Your task to perform on an android device: Open CNN.com Image 0: 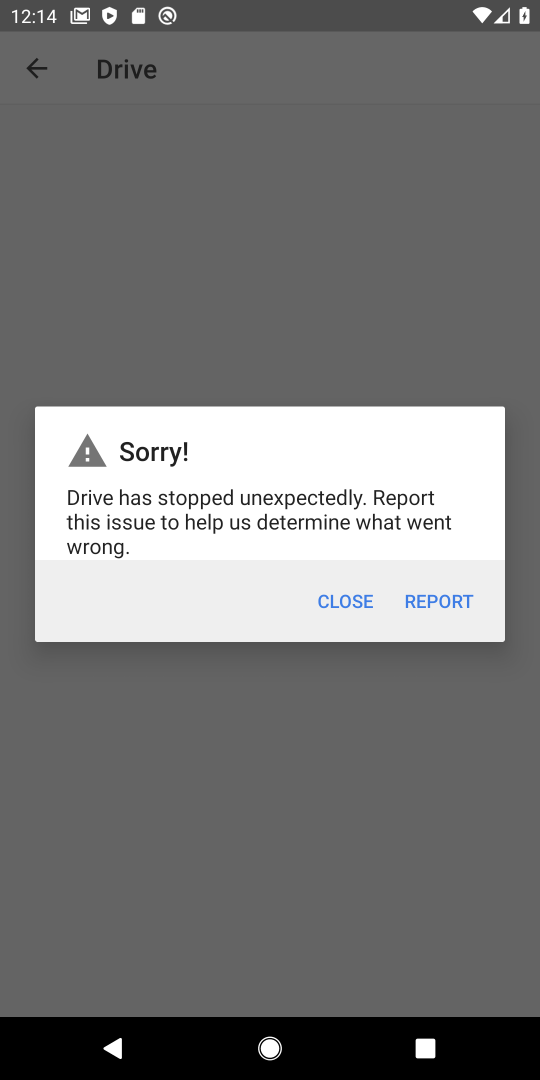
Step 0: press home button
Your task to perform on an android device: Open CNN.com Image 1: 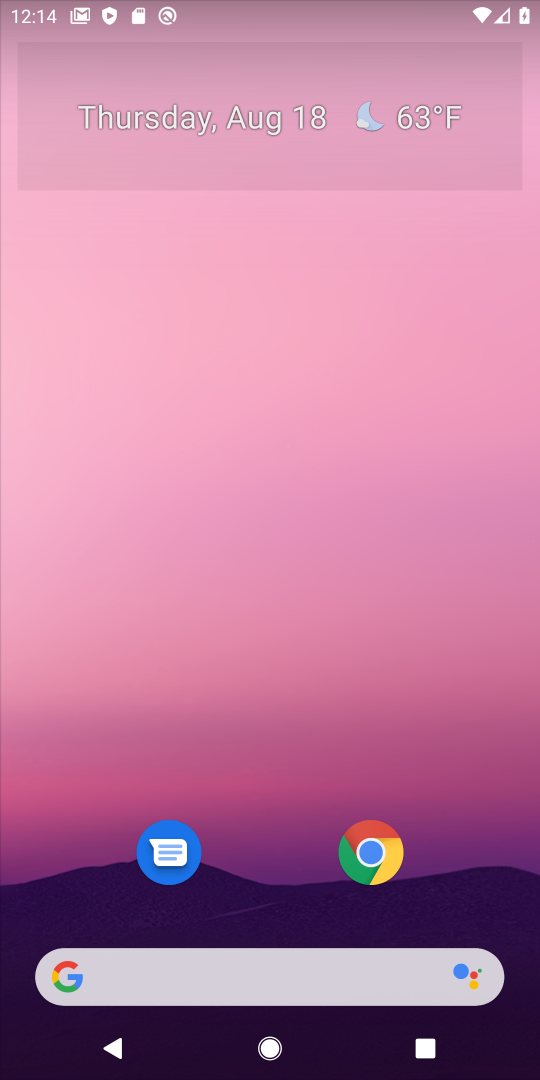
Step 1: task complete